Your task to perform on an android device: How much does a 3 bedroom apartment rent for in Miami? Image 0: 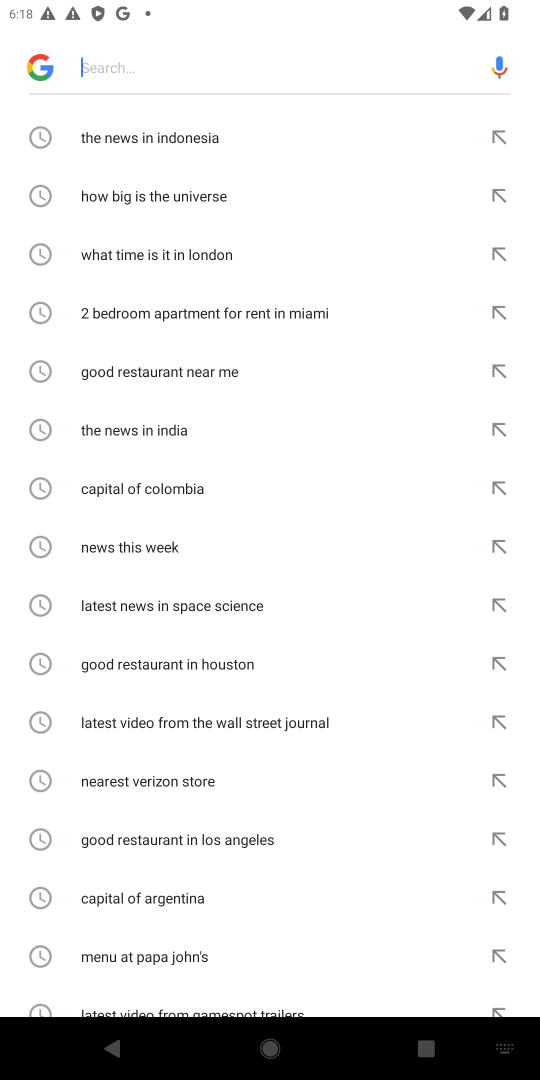
Step 0: press home button
Your task to perform on an android device: How much does a 3 bedroom apartment rent for in Miami? Image 1: 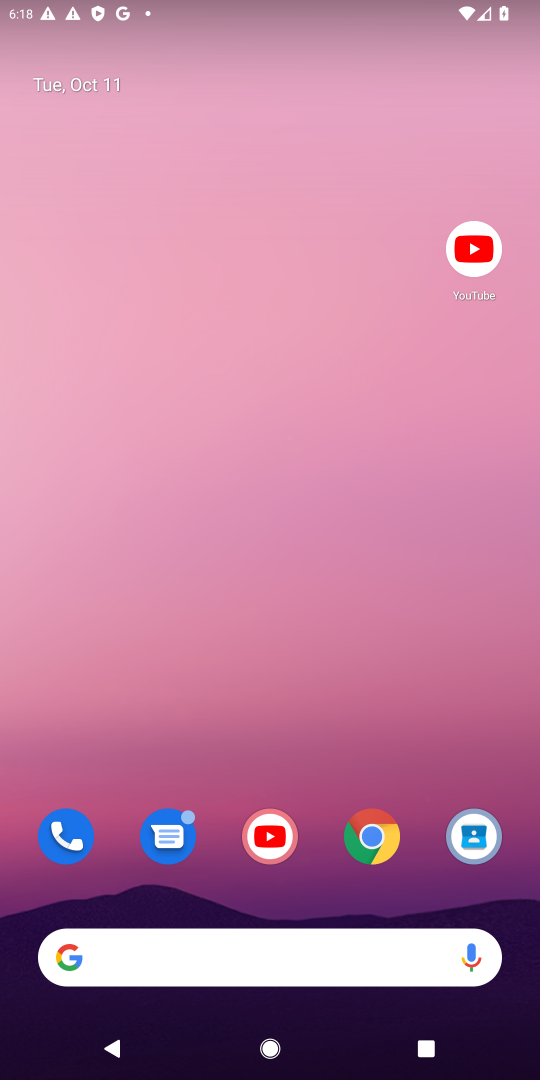
Step 1: click (371, 838)
Your task to perform on an android device: How much does a 3 bedroom apartment rent for in Miami? Image 2: 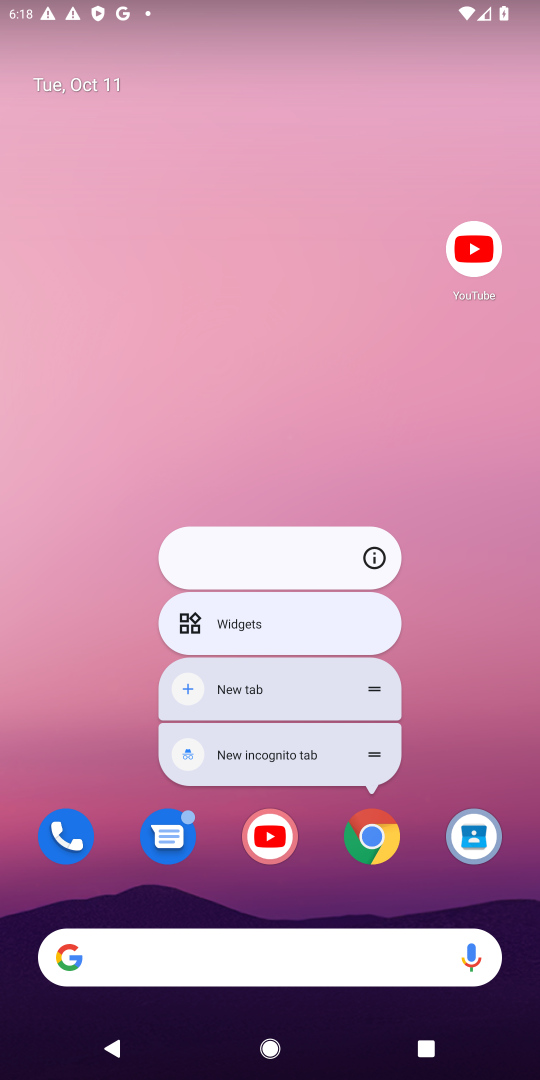
Step 2: click (373, 835)
Your task to perform on an android device: How much does a 3 bedroom apartment rent for in Miami? Image 3: 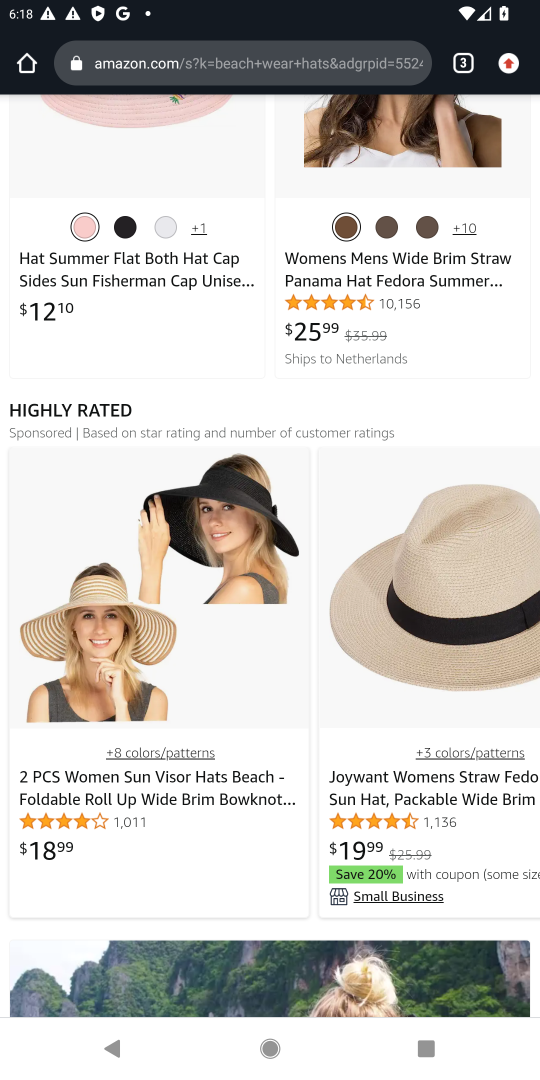
Step 3: click (346, 67)
Your task to perform on an android device: How much does a 3 bedroom apartment rent for in Miami? Image 4: 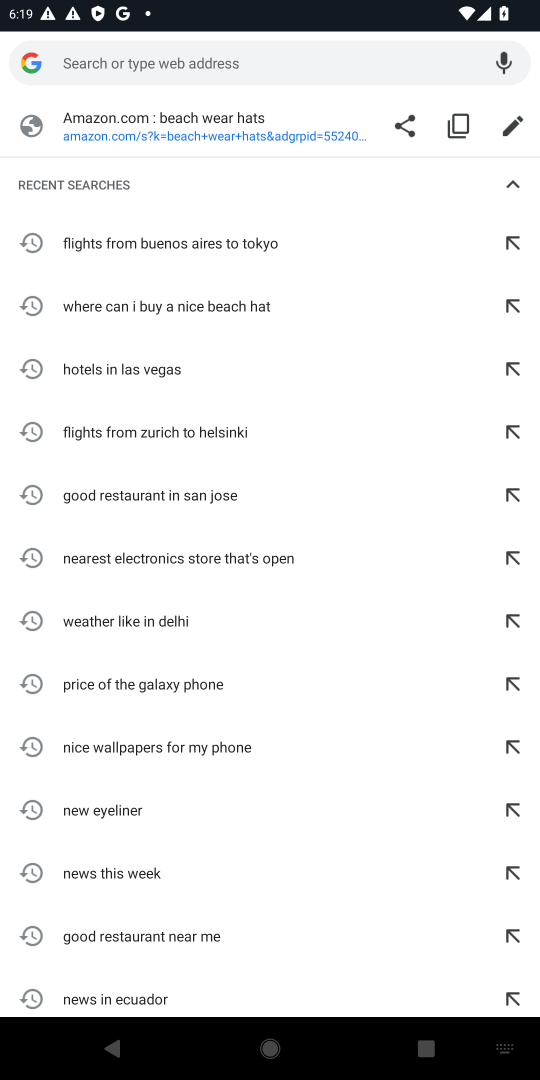
Step 4: type "3 bedroom apartment rent for in Miami"
Your task to perform on an android device: How much does a 3 bedroom apartment rent for in Miami? Image 5: 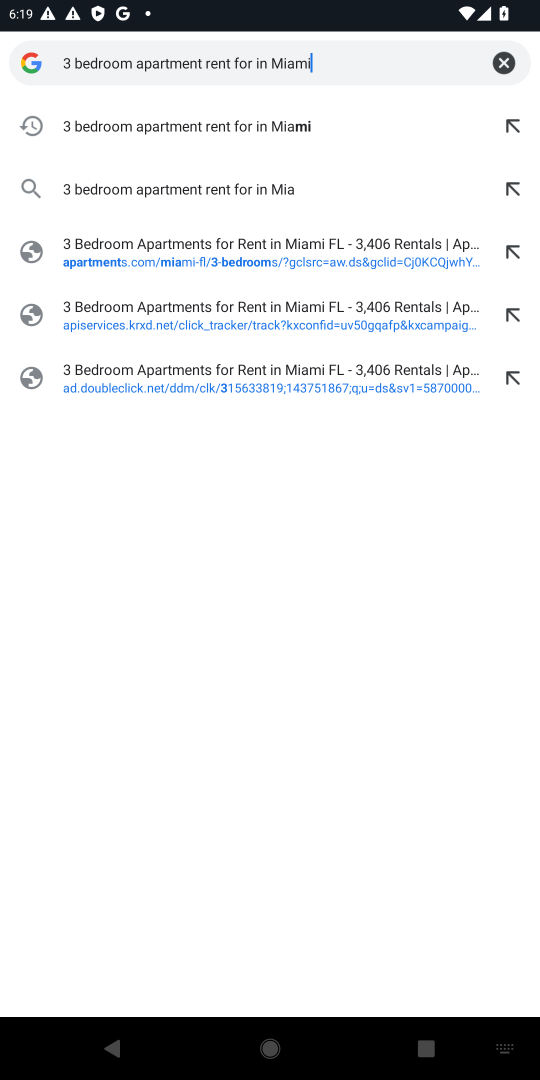
Step 5: press enter
Your task to perform on an android device: How much does a 3 bedroom apartment rent for in Miami? Image 6: 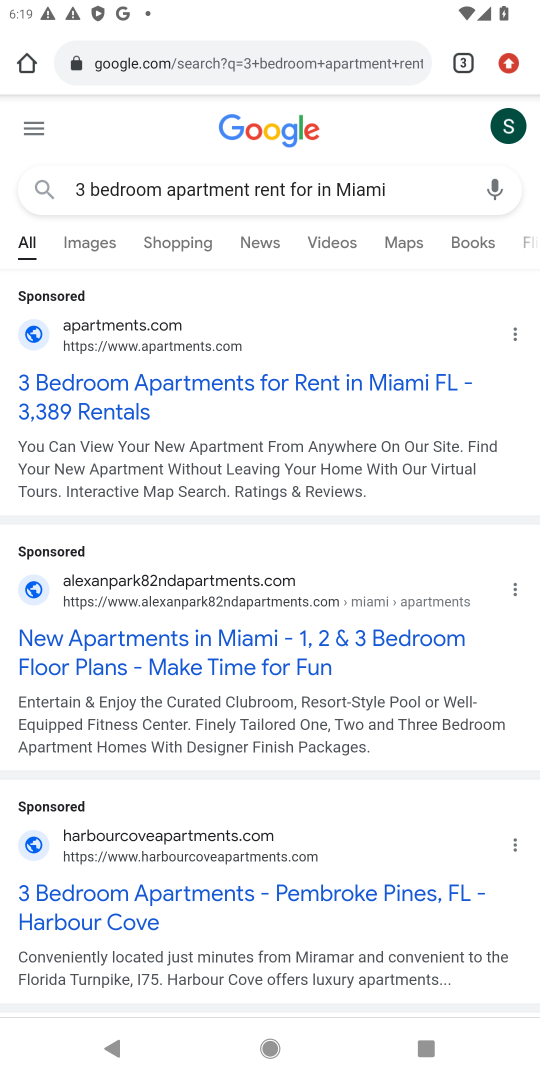
Step 6: click (302, 375)
Your task to perform on an android device: How much does a 3 bedroom apartment rent for in Miami? Image 7: 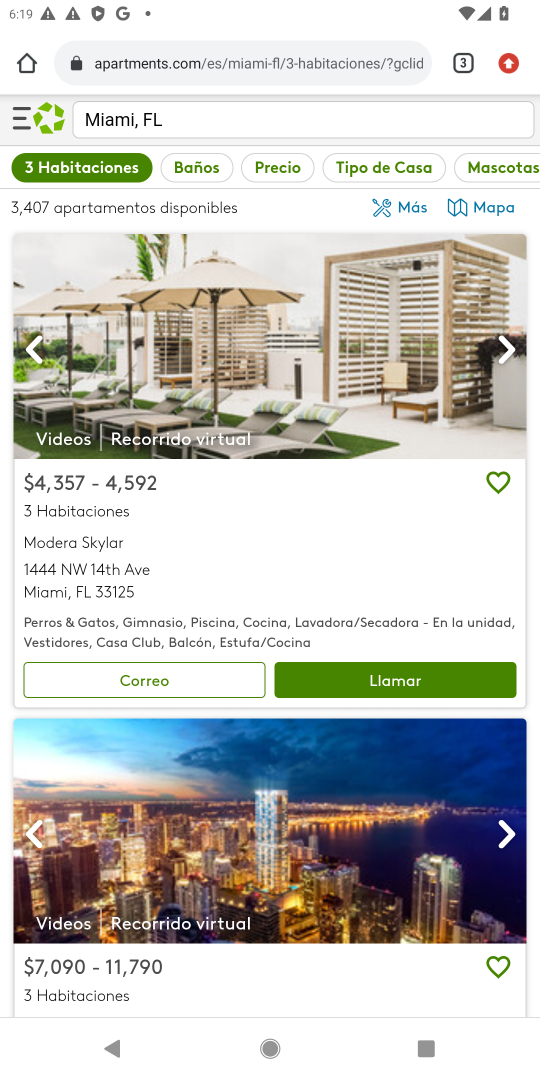
Step 7: task complete